Your task to perform on an android device: delete a single message in the gmail app Image 0: 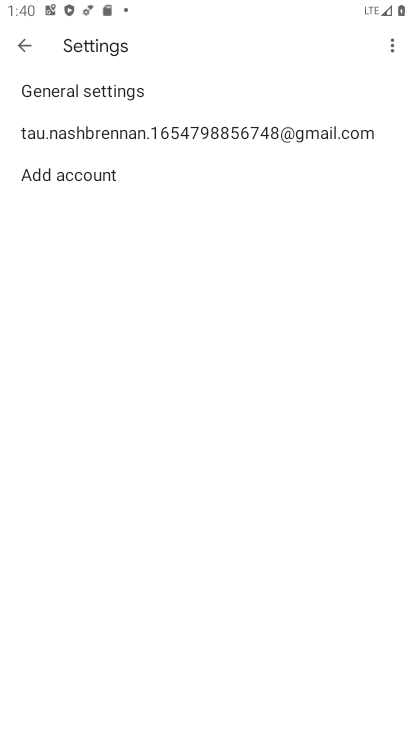
Step 0: click (24, 39)
Your task to perform on an android device: delete a single message in the gmail app Image 1: 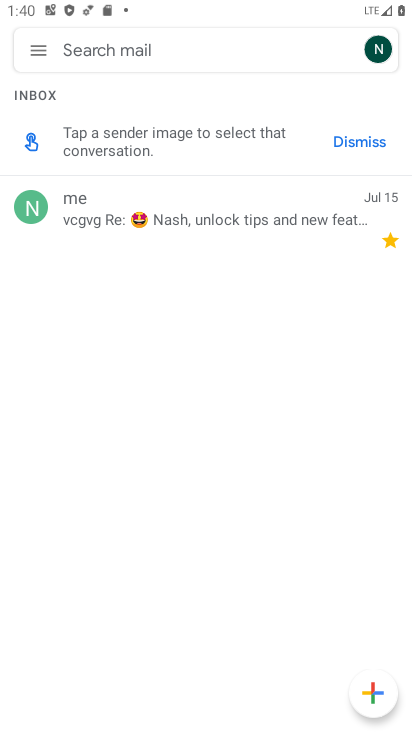
Step 1: click (251, 221)
Your task to perform on an android device: delete a single message in the gmail app Image 2: 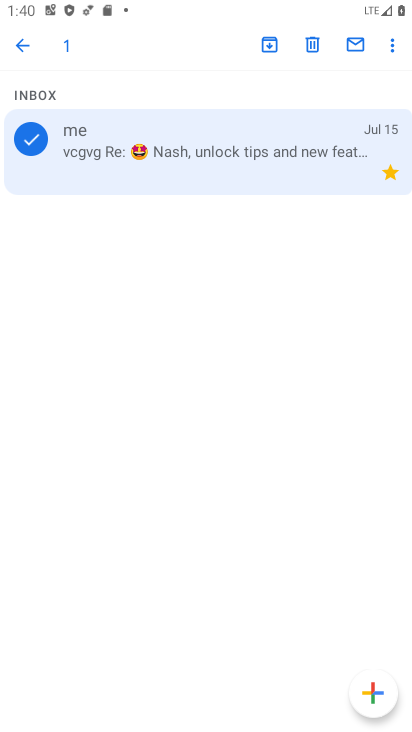
Step 2: click (313, 34)
Your task to perform on an android device: delete a single message in the gmail app Image 3: 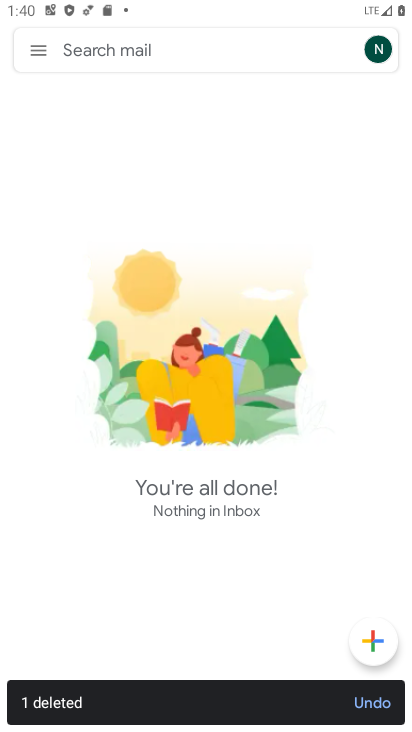
Step 3: task complete